Your task to perform on an android device: Open battery settings Image 0: 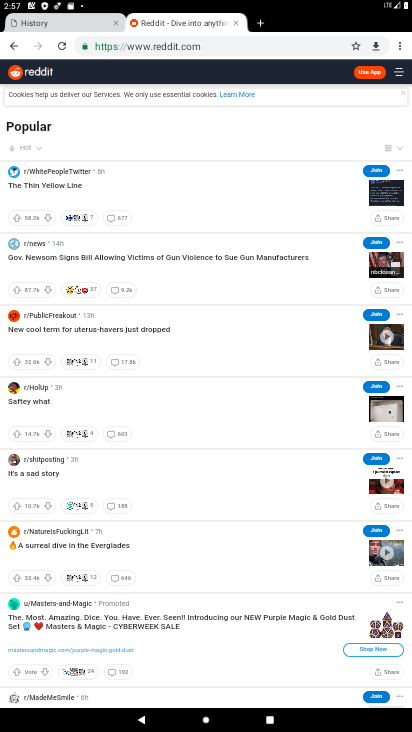
Step 0: press home button
Your task to perform on an android device: Open battery settings Image 1: 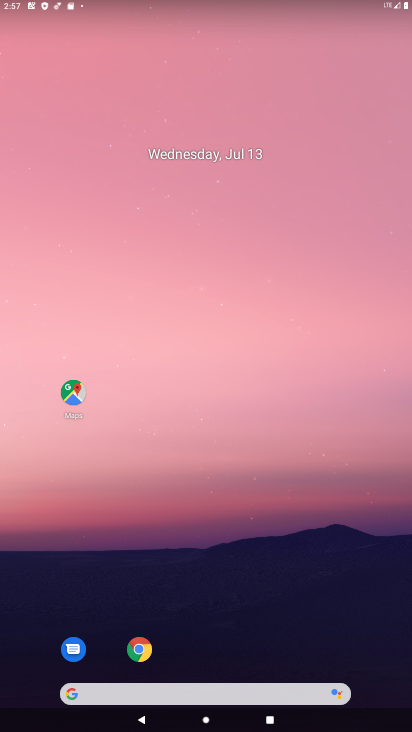
Step 1: drag from (211, 645) to (193, 48)
Your task to perform on an android device: Open battery settings Image 2: 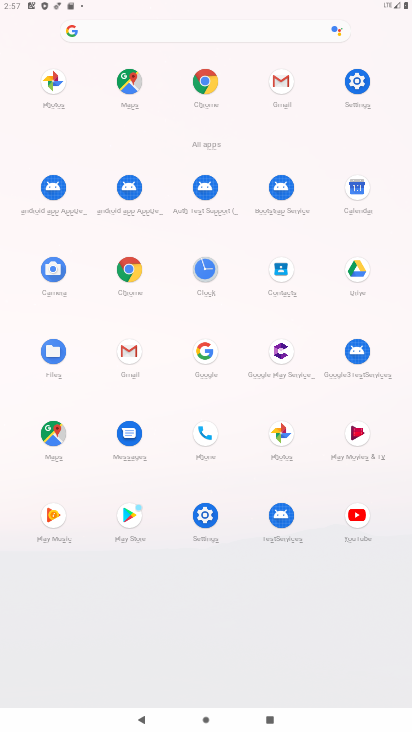
Step 2: click (353, 78)
Your task to perform on an android device: Open battery settings Image 3: 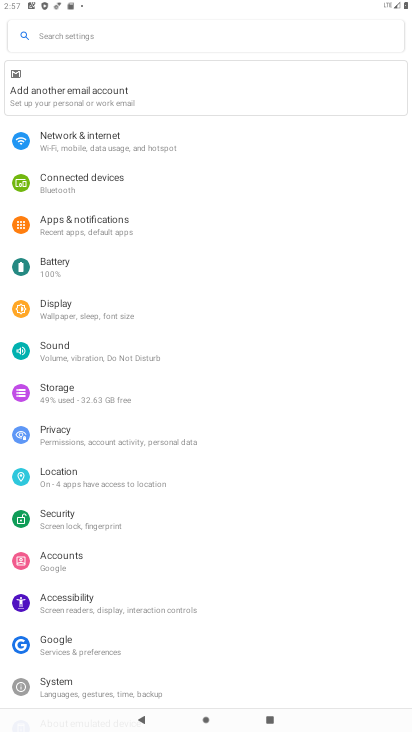
Step 3: click (73, 265)
Your task to perform on an android device: Open battery settings Image 4: 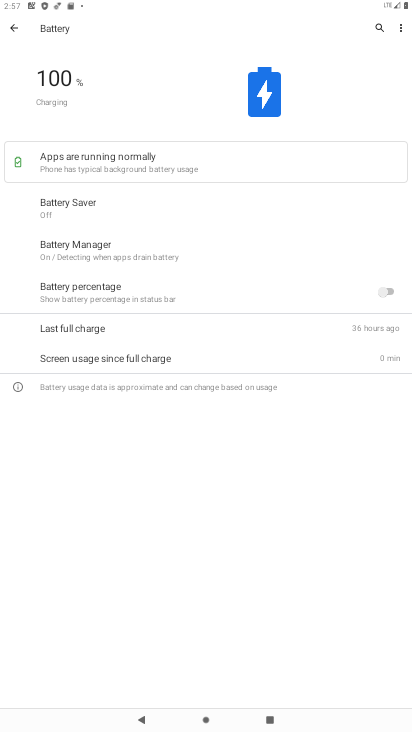
Step 4: task complete